Your task to perform on an android device: toggle priority inbox in the gmail app Image 0: 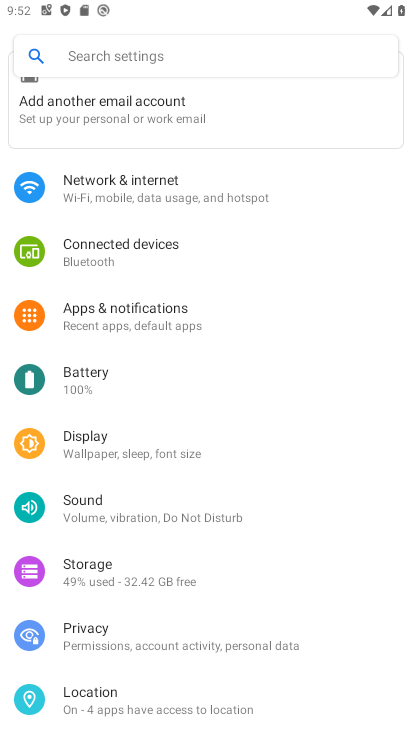
Step 0: press home button
Your task to perform on an android device: toggle priority inbox in the gmail app Image 1: 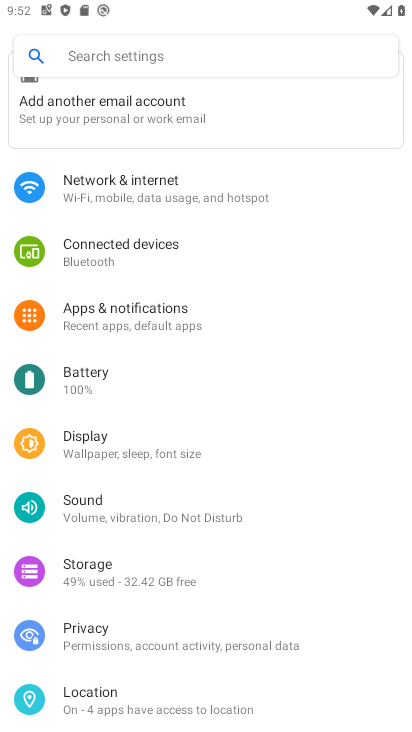
Step 1: press home button
Your task to perform on an android device: toggle priority inbox in the gmail app Image 2: 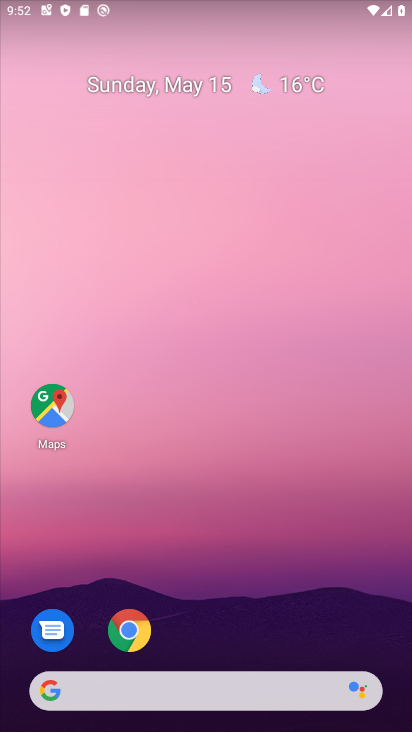
Step 2: drag from (281, 610) to (262, 118)
Your task to perform on an android device: toggle priority inbox in the gmail app Image 3: 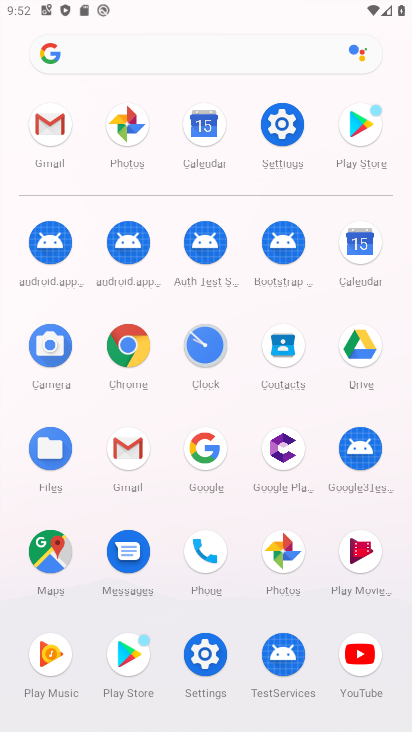
Step 3: click (40, 122)
Your task to perform on an android device: toggle priority inbox in the gmail app Image 4: 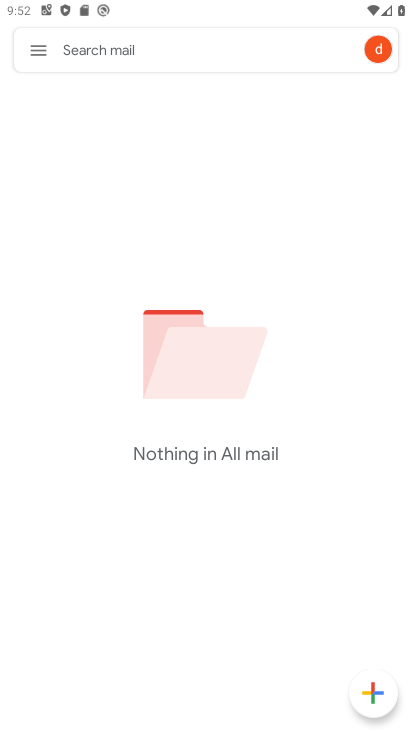
Step 4: click (28, 51)
Your task to perform on an android device: toggle priority inbox in the gmail app Image 5: 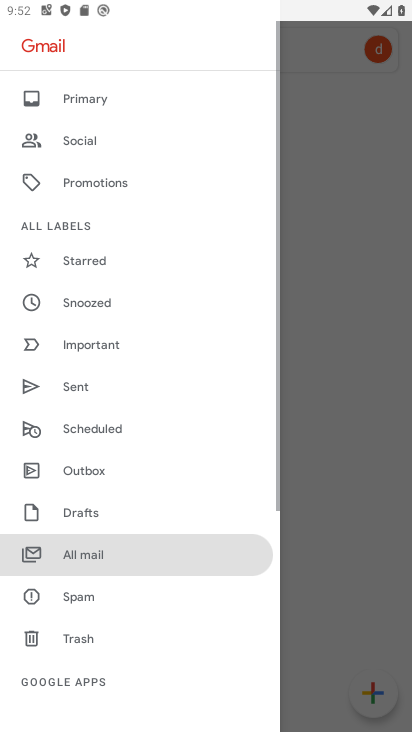
Step 5: drag from (114, 642) to (134, 322)
Your task to perform on an android device: toggle priority inbox in the gmail app Image 6: 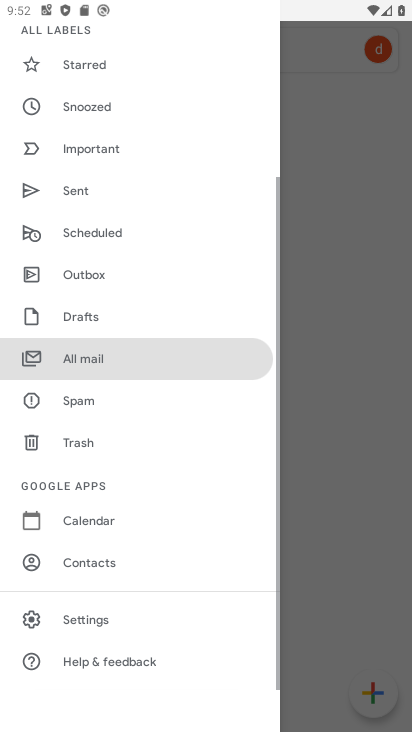
Step 6: click (82, 614)
Your task to perform on an android device: toggle priority inbox in the gmail app Image 7: 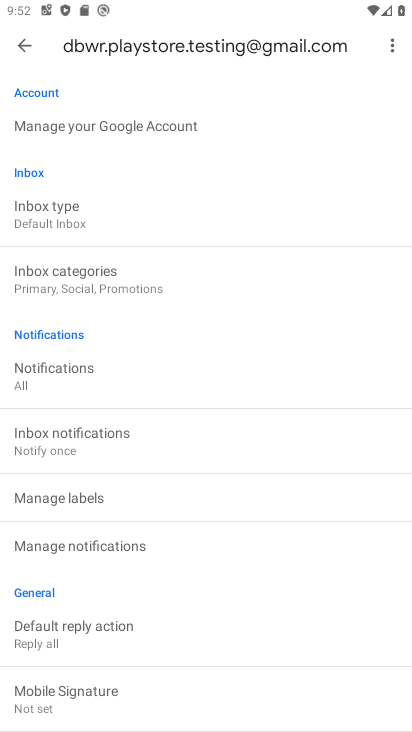
Step 7: click (108, 216)
Your task to perform on an android device: toggle priority inbox in the gmail app Image 8: 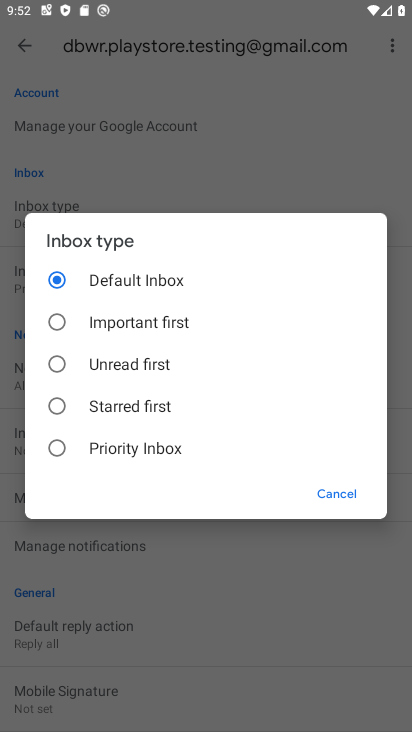
Step 8: click (162, 447)
Your task to perform on an android device: toggle priority inbox in the gmail app Image 9: 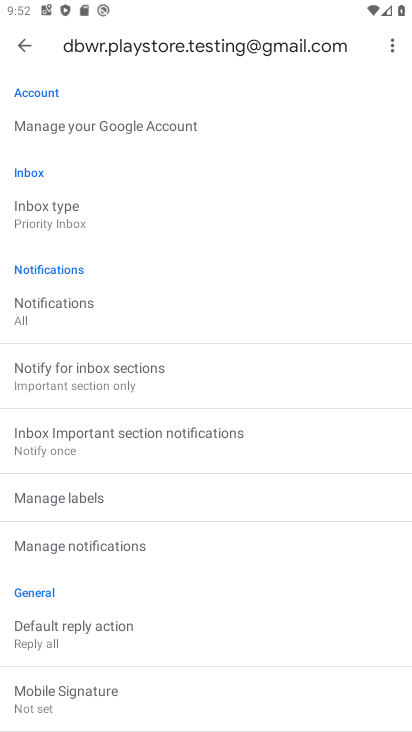
Step 9: task complete